Your task to perform on an android device: snooze an email in the gmail app Image 0: 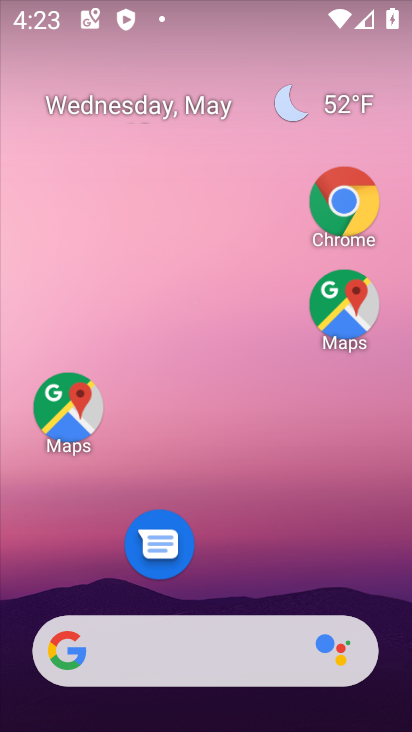
Step 0: drag from (267, 565) to (181, 10)
Your task to perform on an android device: snooze an email in the gmail app Image 1: 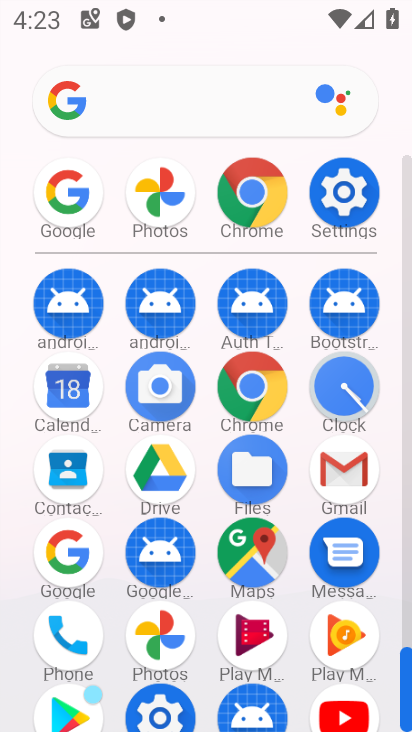
Step 1: click (352, 487)
Your task to perform on an android device: snooze an email in the gmail app Image 2: 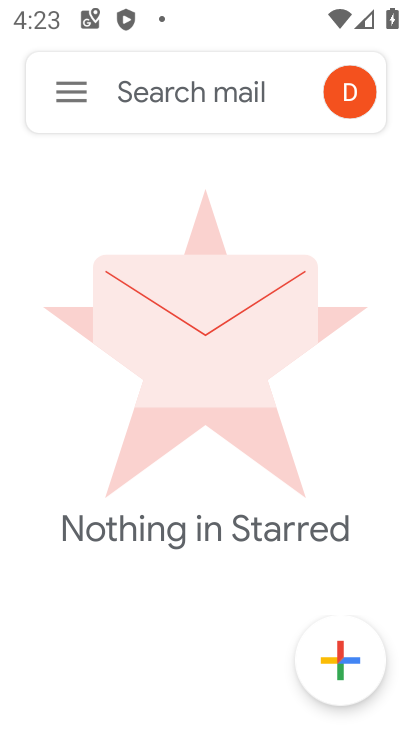
Step 2: click (58, 100)
Your task to perform on an android device: snooze an email in the gmail app Image 3: 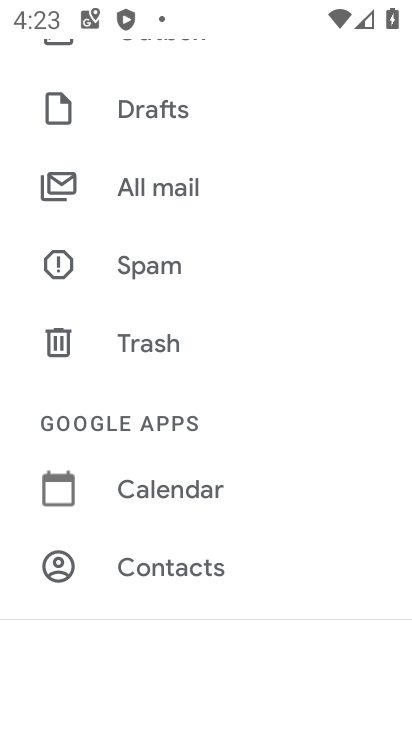
Step 3: drag from (200, 203) to (184, 498)
Your task to perform on an android device: snooze an email in the gmail app Image 4: 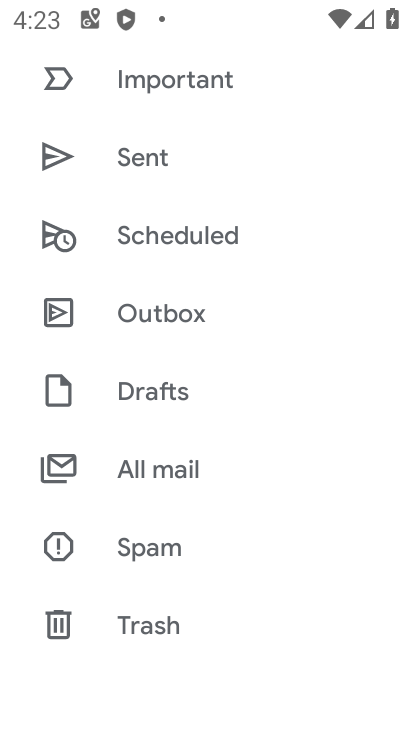
Step 4: click (172, 474)
Your task to perform on an android device: snooze an email in the gmail app Image 5: 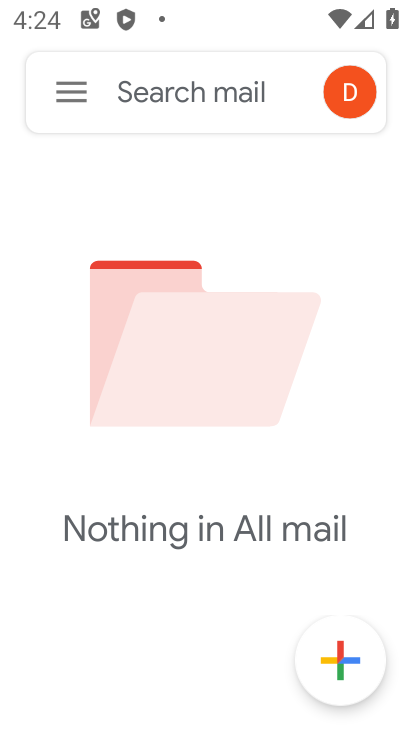
Step 5: task complete